Your task to perform on an android device: Go to Google maps Image 0: 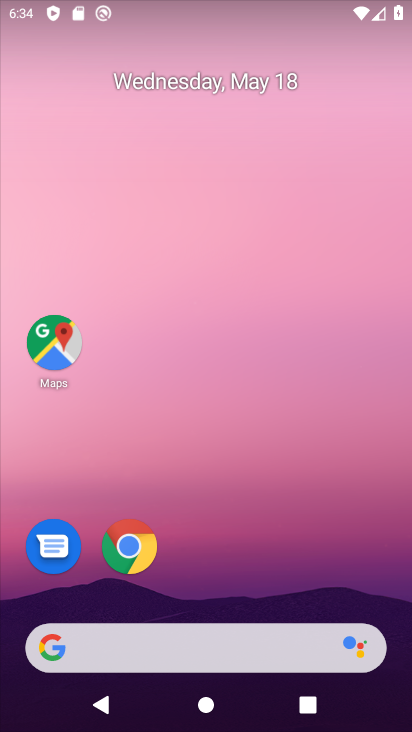
Step 0: drag from (363, 598) to (284, 252)
Your task to perform on an android device: Go to Google maps Image 1: 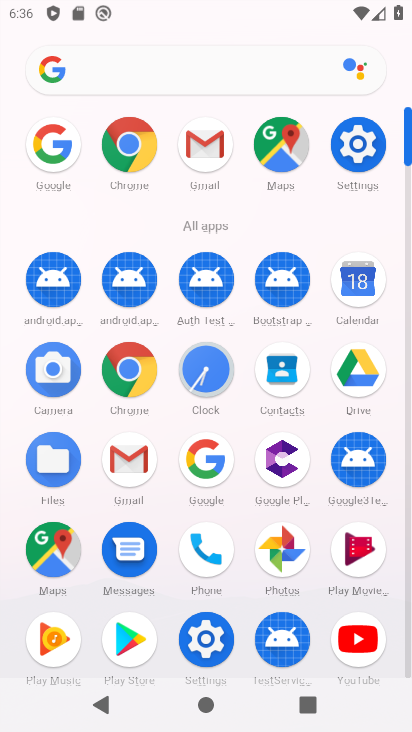
Step 1: click (60, 549)
Your task to perform on an android device: Go to Google maps Image 2: 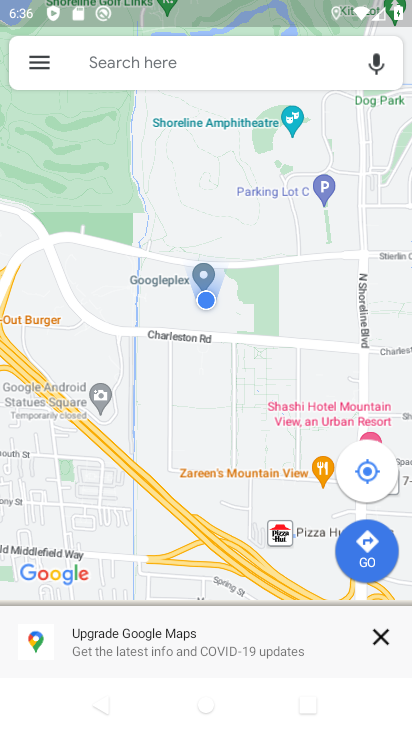
Step 2: task complete